Your task to perform on an android device: install app "Indeed Job Search" Image 0: 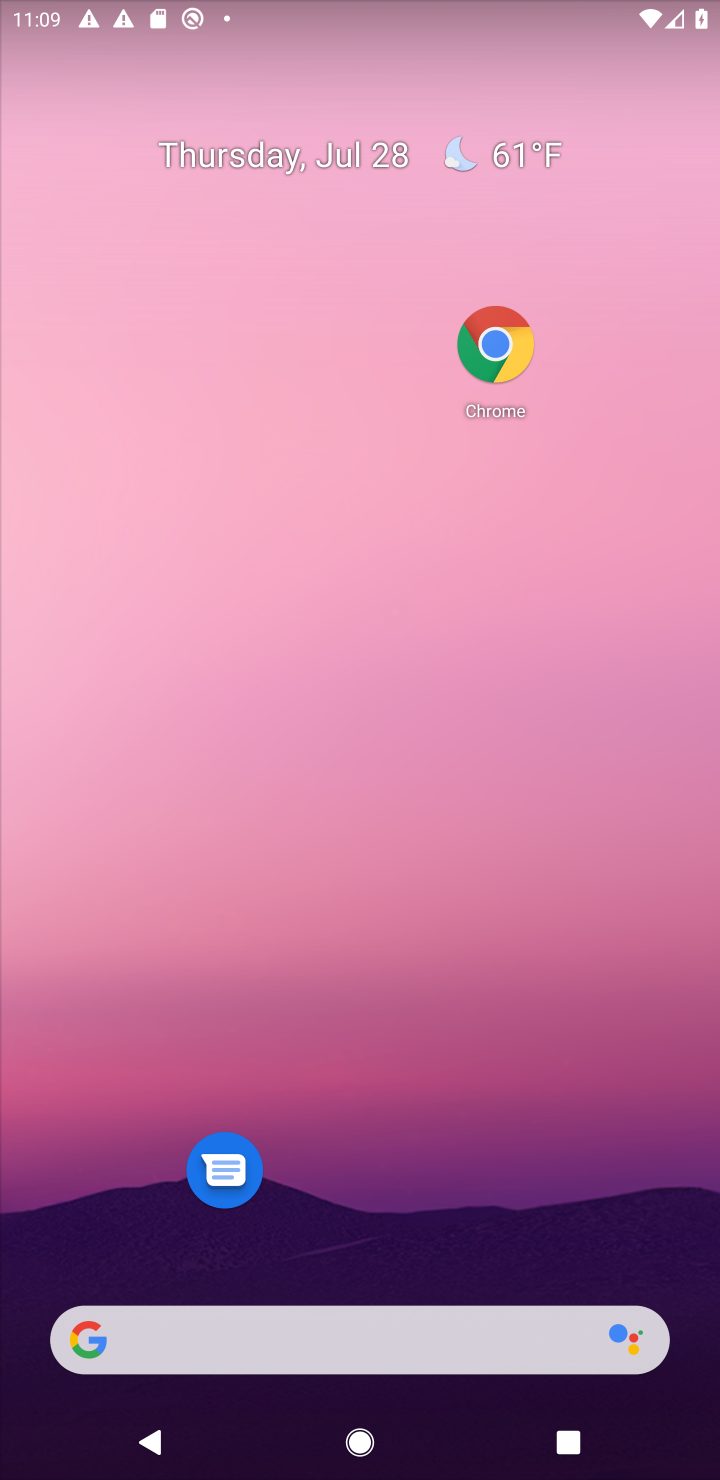
Step 0: drag from (476, 1339) to (485, 0)
Your task to perform on an android device: install app "Indeed Job Search" Image 1: 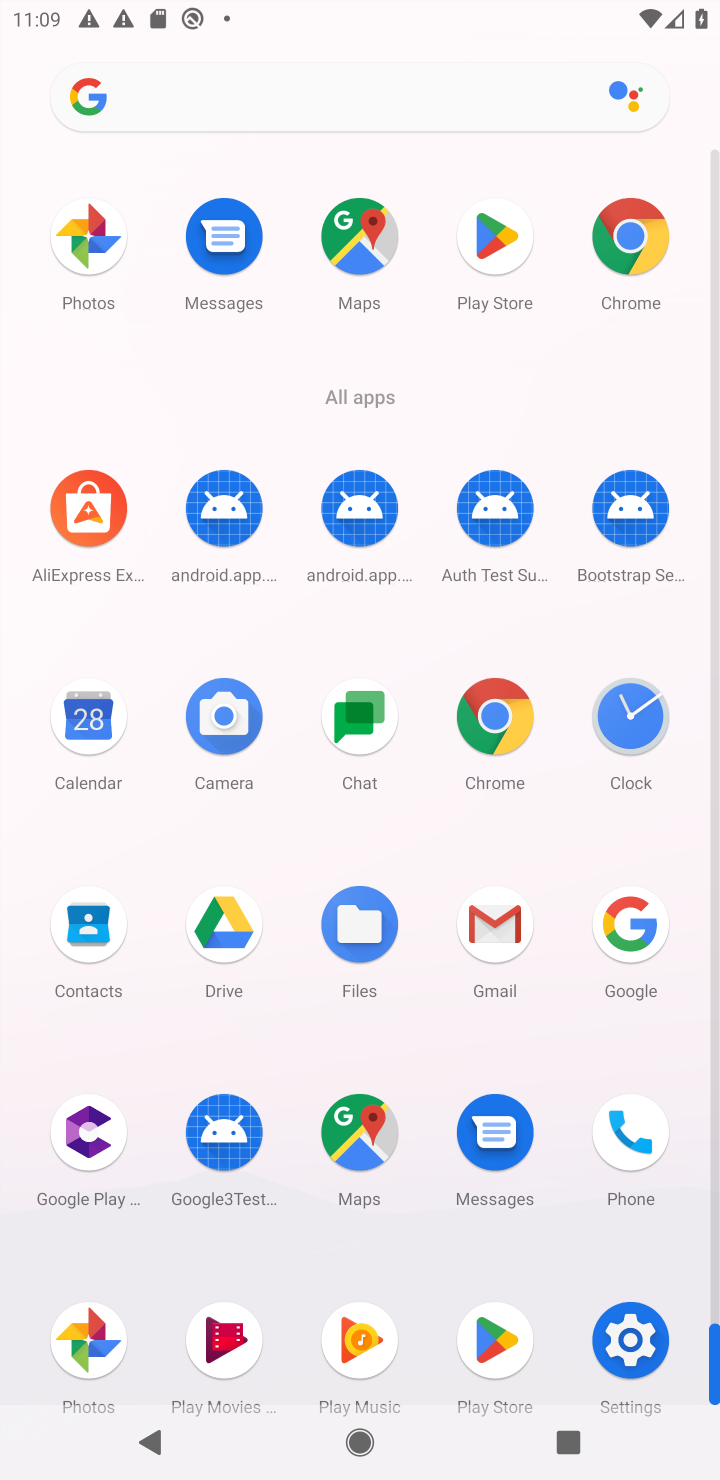
Step 1: click (498, 1322)
Your task to perform on an android device: install app "Indeed Job Search" Image 2: 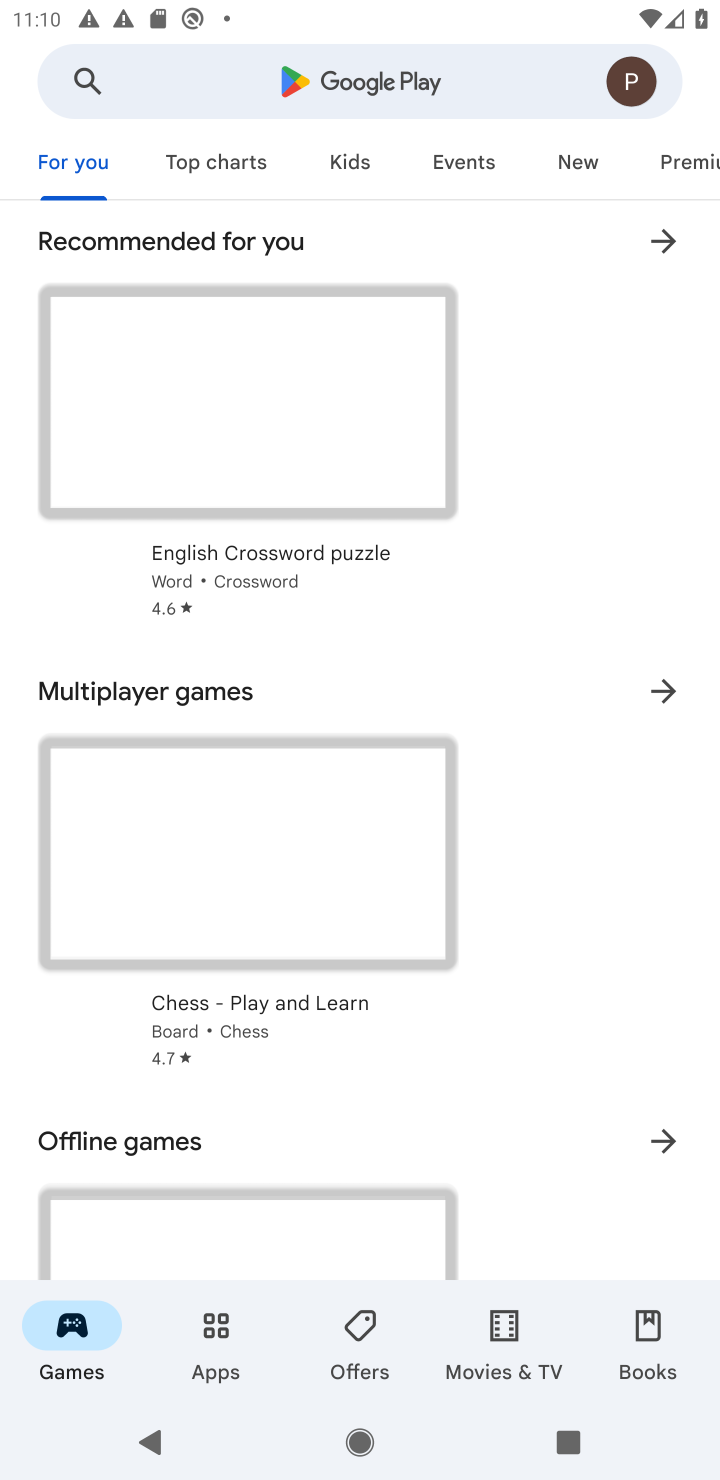
Step 2: click (442, 96)
Your task to perform on an android device: install app "Indeed Job Search" Image 3: 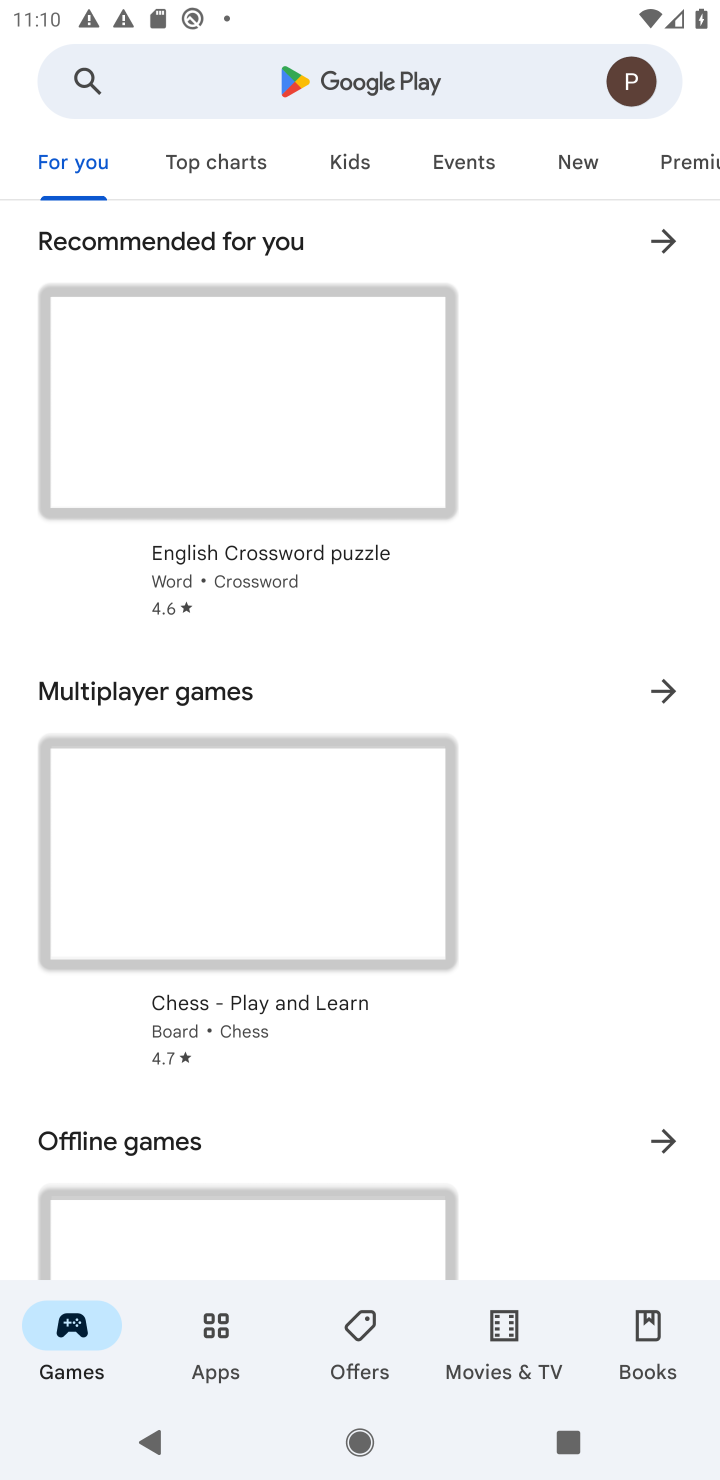
Step 3: click (442, 96)
Your task to perform on an android device: install app "Indeed Job Search" Image 4: 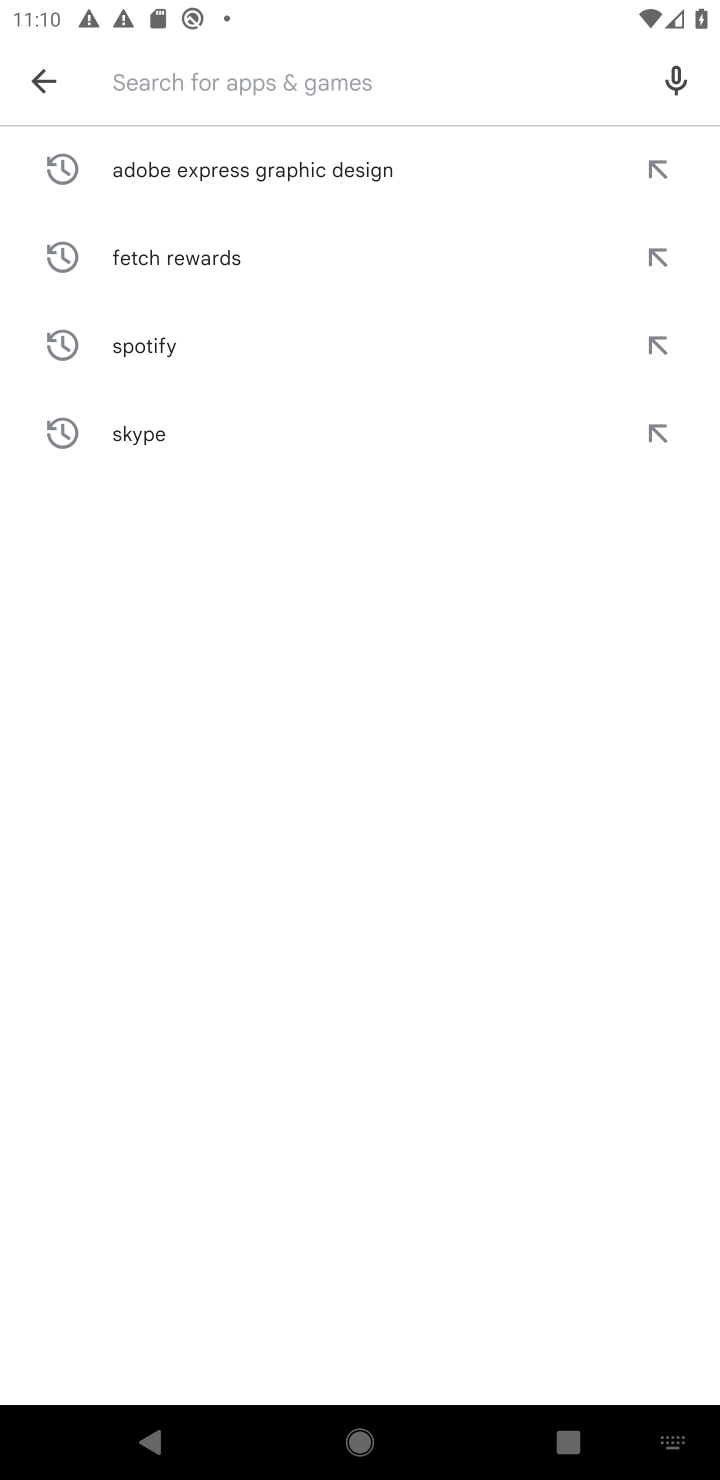
Step 4: type "indeed  job search"
Your task to perform on an android device: install app "Indeed Job Search" Image 5: 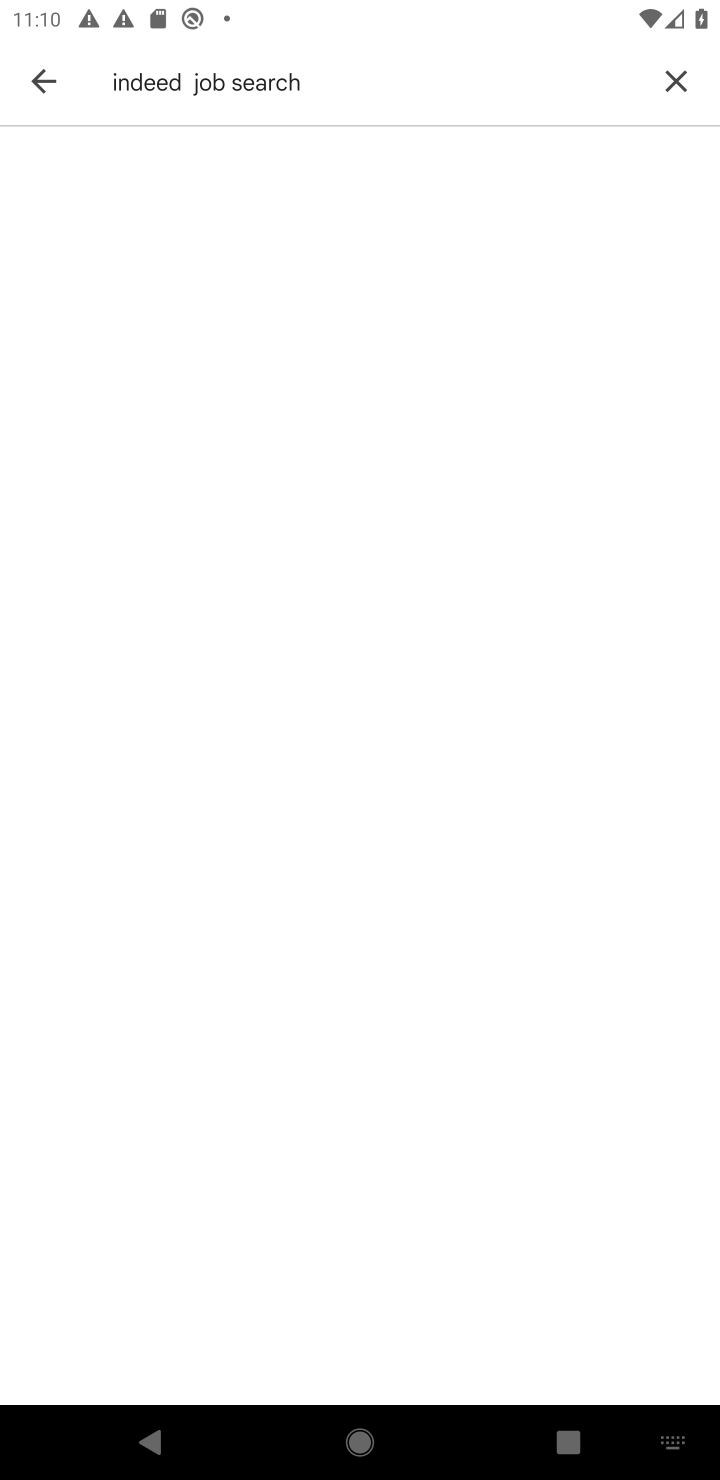
Step 5: task complete